Your task to perform on an android device: change the clock display to show seconds Image 0: 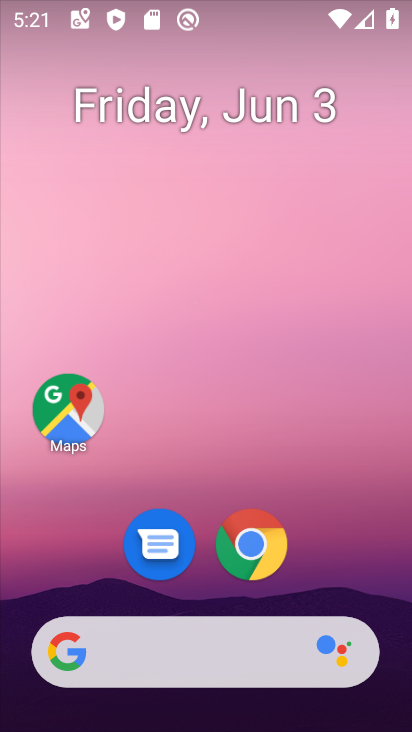
Step 0: drag from (321, 570) to (324, 41)
Your task to perform on an android device: change the clock display to show seconds Image 1: 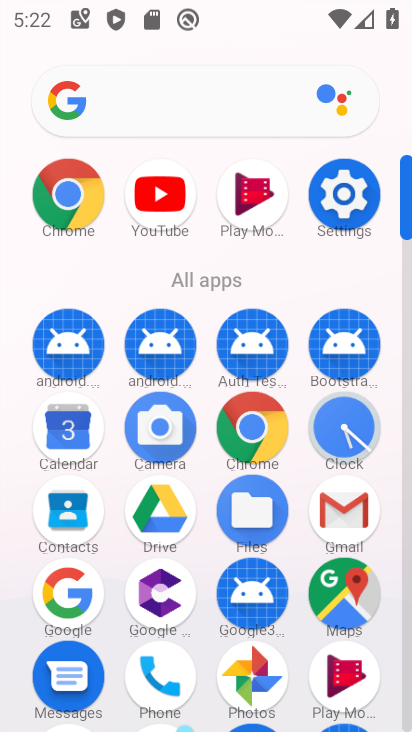
Step 1: click (336, 190)
Your task to perform on an android device: change the clock display to show seconds Image 2: 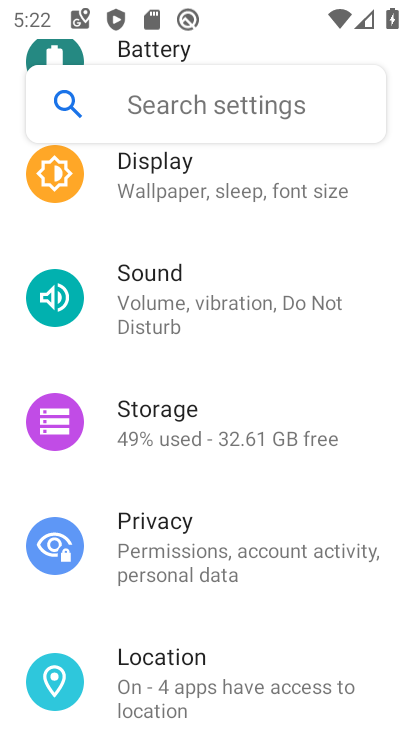
Step 2: press home button
Your task to perform on an android device: change the clock display to show seconds Image 3: 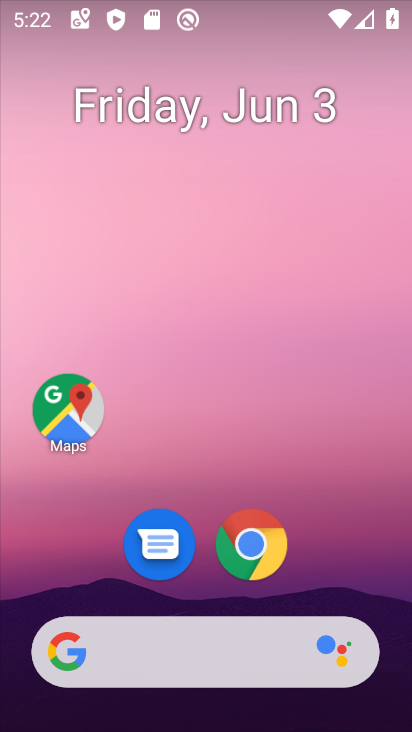
Step 3: drag from (328, 557) to (336, 98)
Your task to perform on an android device: change the clock display to show seconds Image 4: 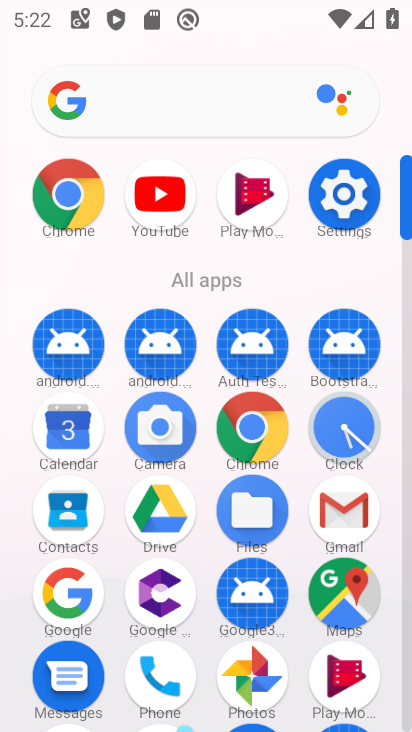
Step 4: click (344, 425)
Your task to perform on an android device: change the clock display to show seconds Image 5: 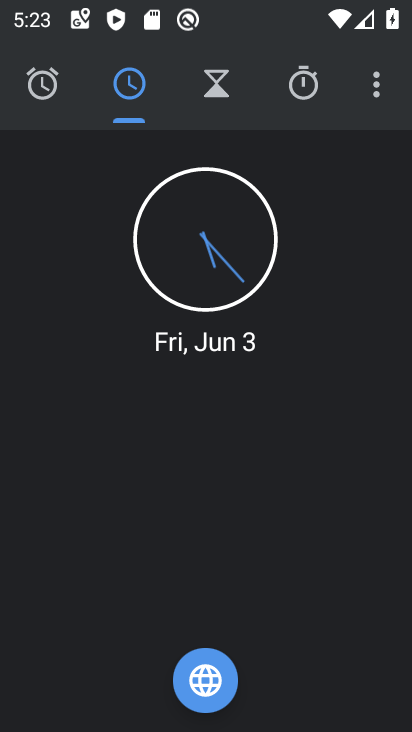
Step 5: click (374, 89)
Your task to perform on an android device: change the clock display to show seconds Image 6: 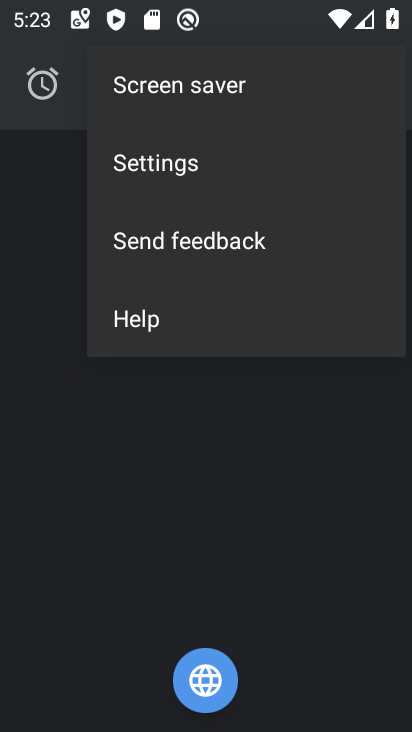
Step 6: click (170, 161)
Your task to perform on an android device: change the clock display to show seconds Image 7: 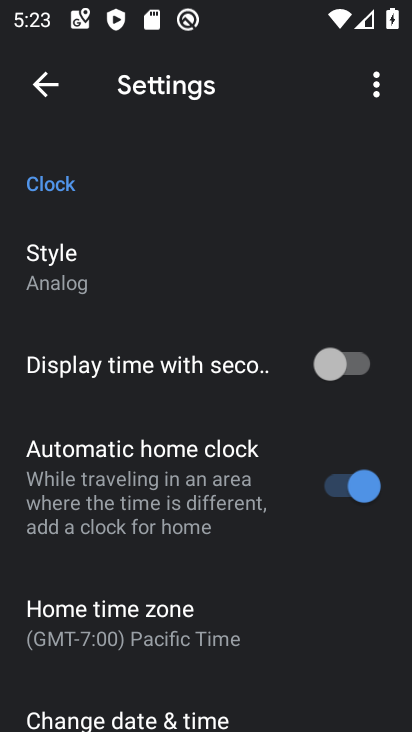
Step 7: click (321, 359)
Your task to perform on an android device: change the clock display to show seconds Image 8: 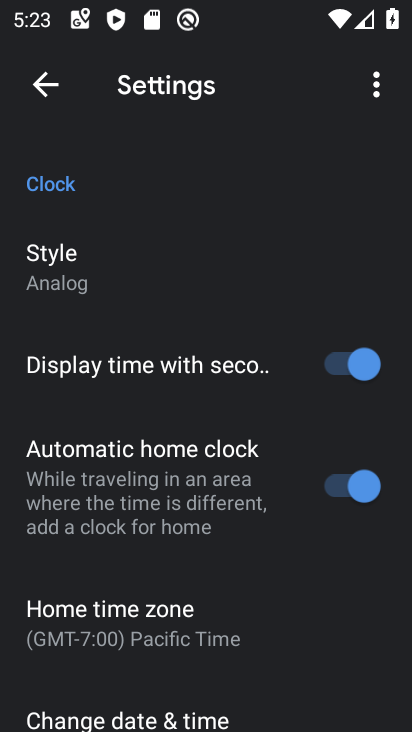
Step 8: task complete